Your task to perform on an android device: Open Youtube and go to the subscriptions tab Image 0: 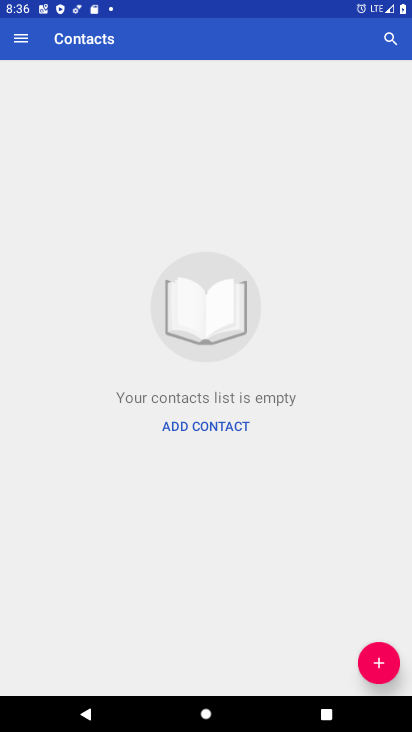
Step 0: press home button
Your task to perform on an android device: Open Youtube and go to the subscriptions tab Image 1: 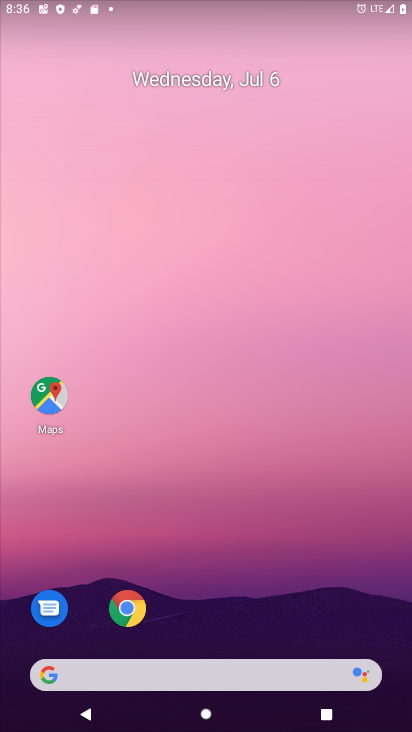
Step 1: drag from (364, 628) to (272, 130)
Your task to perform on an android device: Open Youtube and go to the subscriptions tab Image 2: 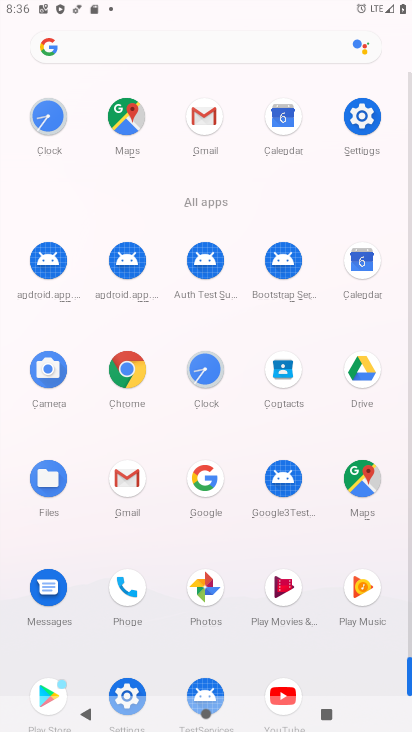
Step 2: click (281, 678)
Your task to perform on an android device: Open Youtube and go to the subscriptions tab Image 3: 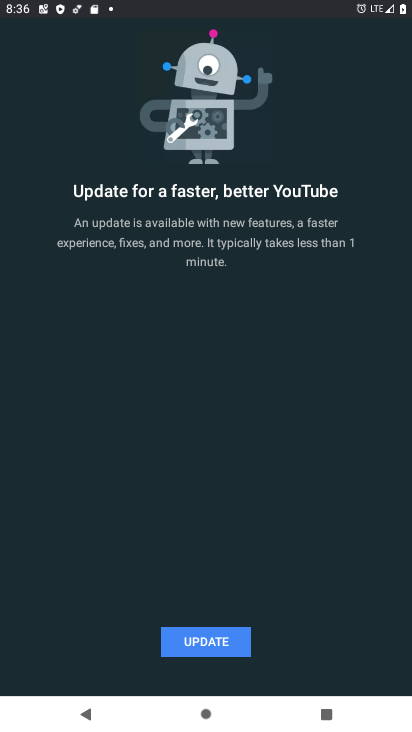
Step 3: click (217, 643)
Your task to perform on an android device: Open Youtube and go to the subscriptions tab Image 4: 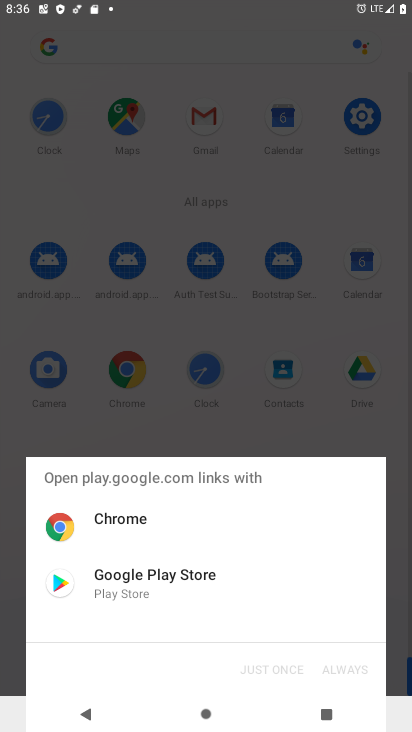
Step 4: click (185, 595)
Your task to perform on an android device: Open Youtube and go to the subscriptions tab Image 5: 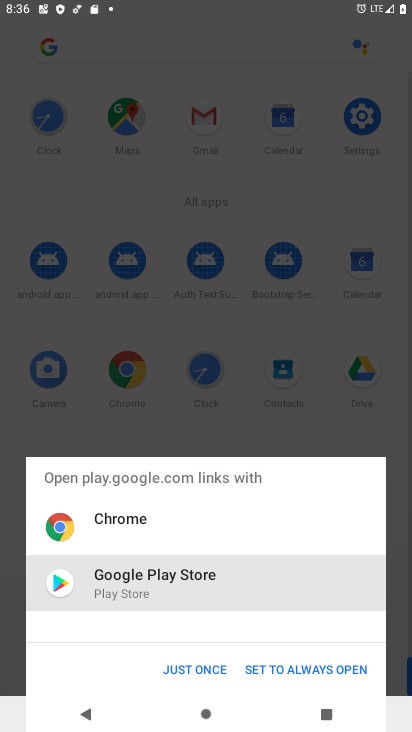
Step 5: click (181, 674)
Your task to perform on an android device: Open Youtube and go to the subscriptions tab Image 6: 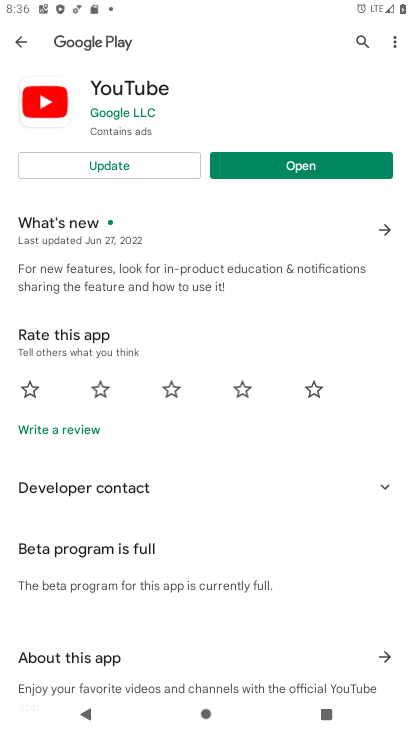
Step 6: click (147, 170)
Your task to perform on an android device: Open Youtube and go to the subscriptions tab Image 7: 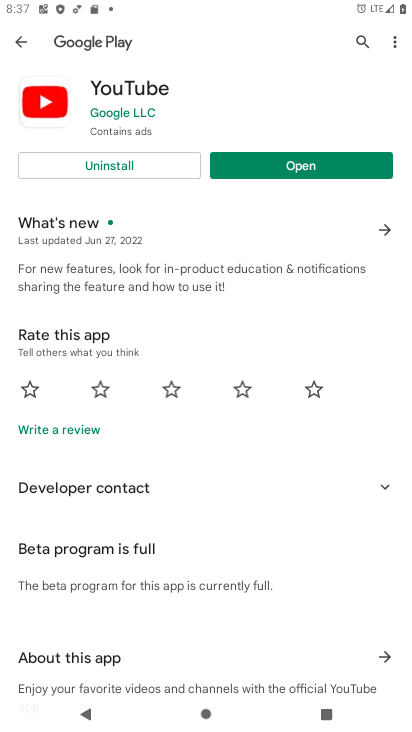
Step 7: click (308, 157)
Your task to perform on an android device: Open Youtube and go to the subscriptions tab Image 8: 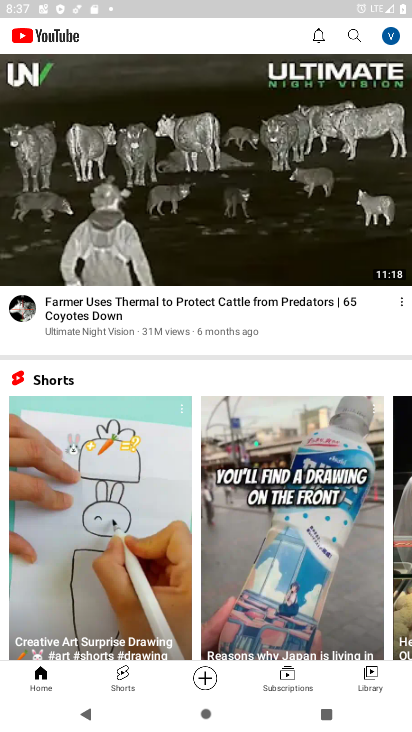
Step 8: click (287, 677)
Your task to perform on an android device: Open Youtube and go to the subscriptions tab Image 9: 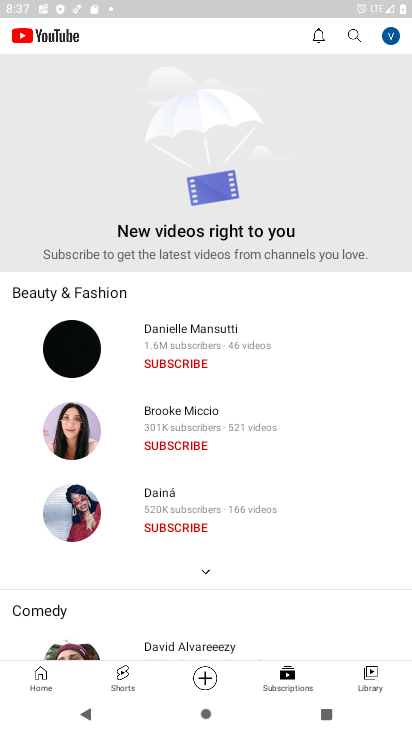
Step 9: task complete